Your task to perform on an android device: Open the calendar and show me this week's events? Image 0: 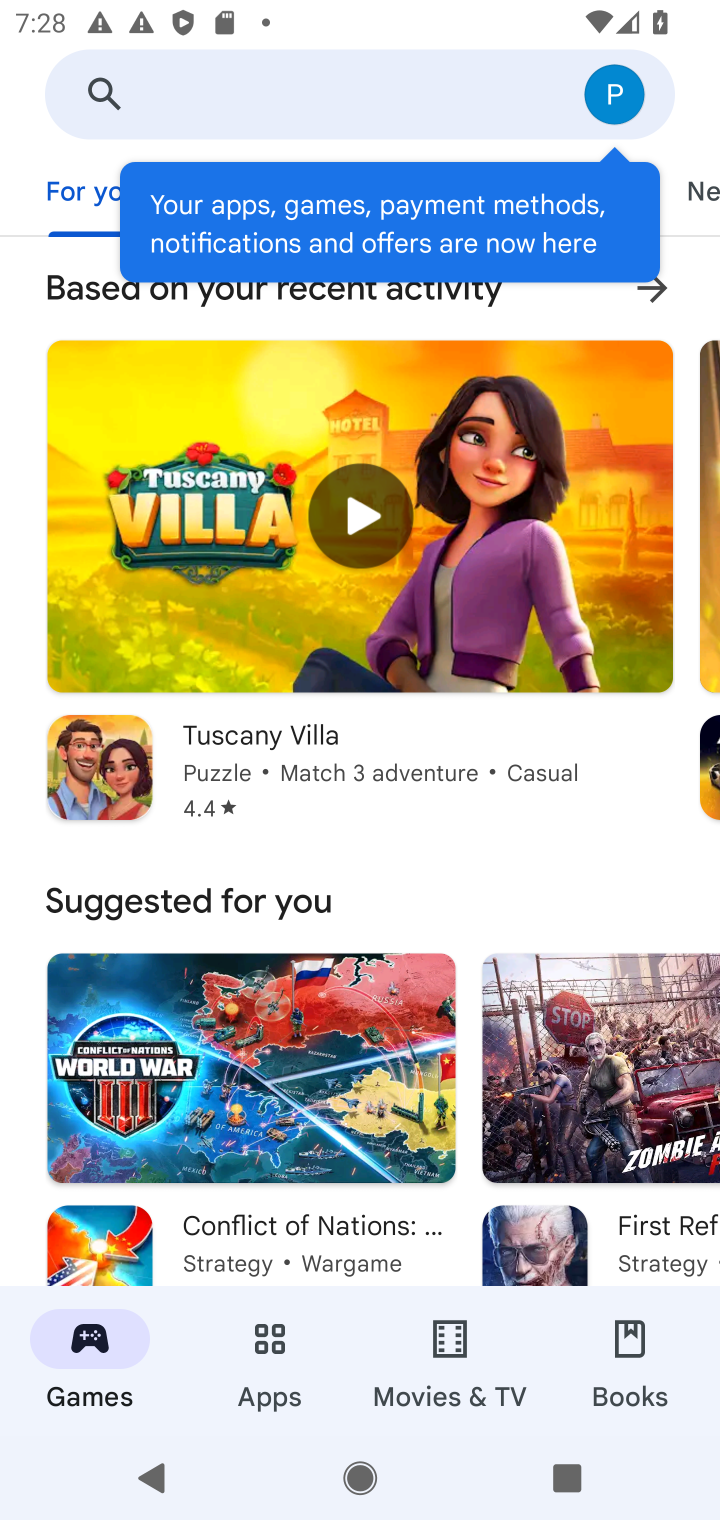
Step 0: press home button
Your task to perform on an android device: Open the calendar and show me this week's events? Image 1: 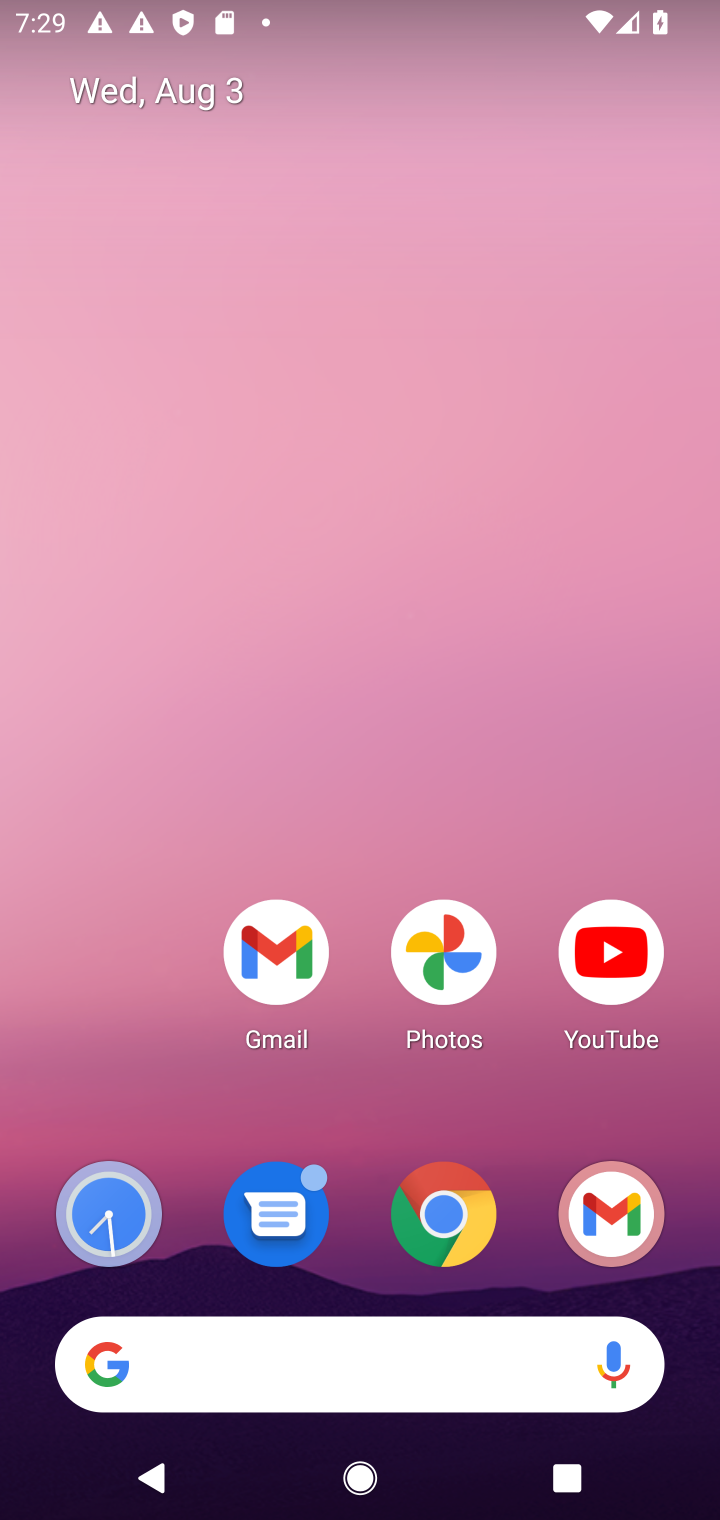
Step 1: drag from (325, 1305) to (360, 17)
Your task to perform on an android device: Open the calendar and show me this week's events? Image 2: 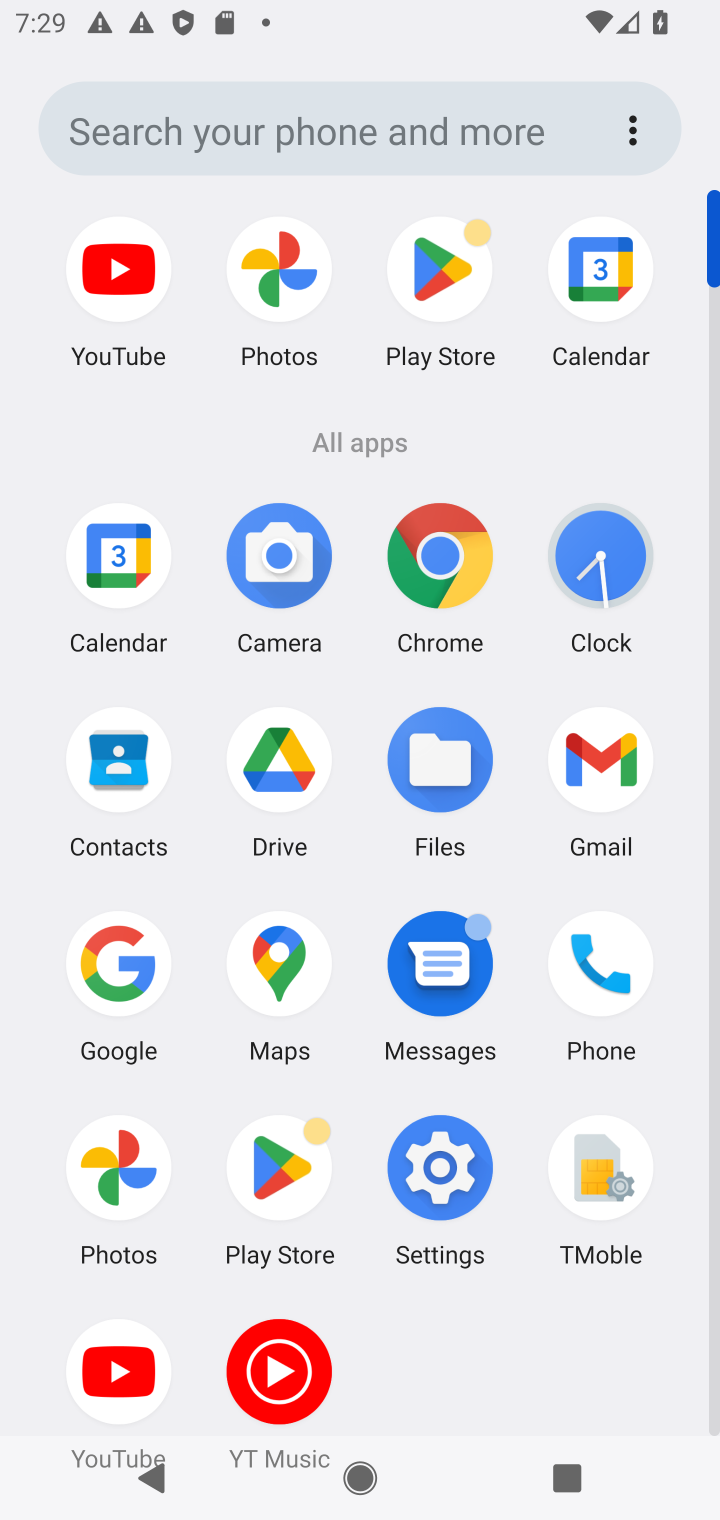
Step 2: click (122, 570)
Your task to perform on an android device: Open the calendar and show me this week's events? Image 3: 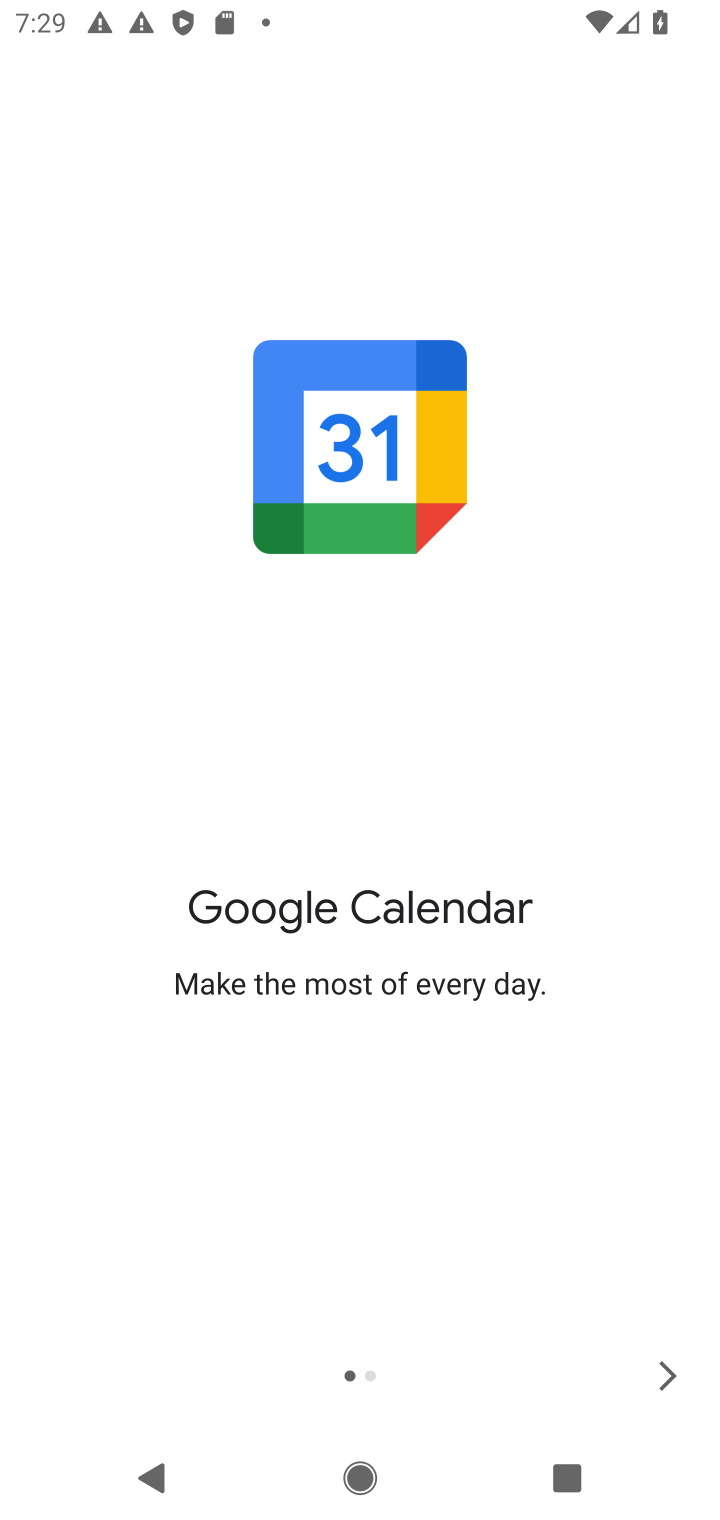
Step 3: click (668, 1374)
Your task to perform on an android device: Open the calendar and show me this week's events? Image 4: 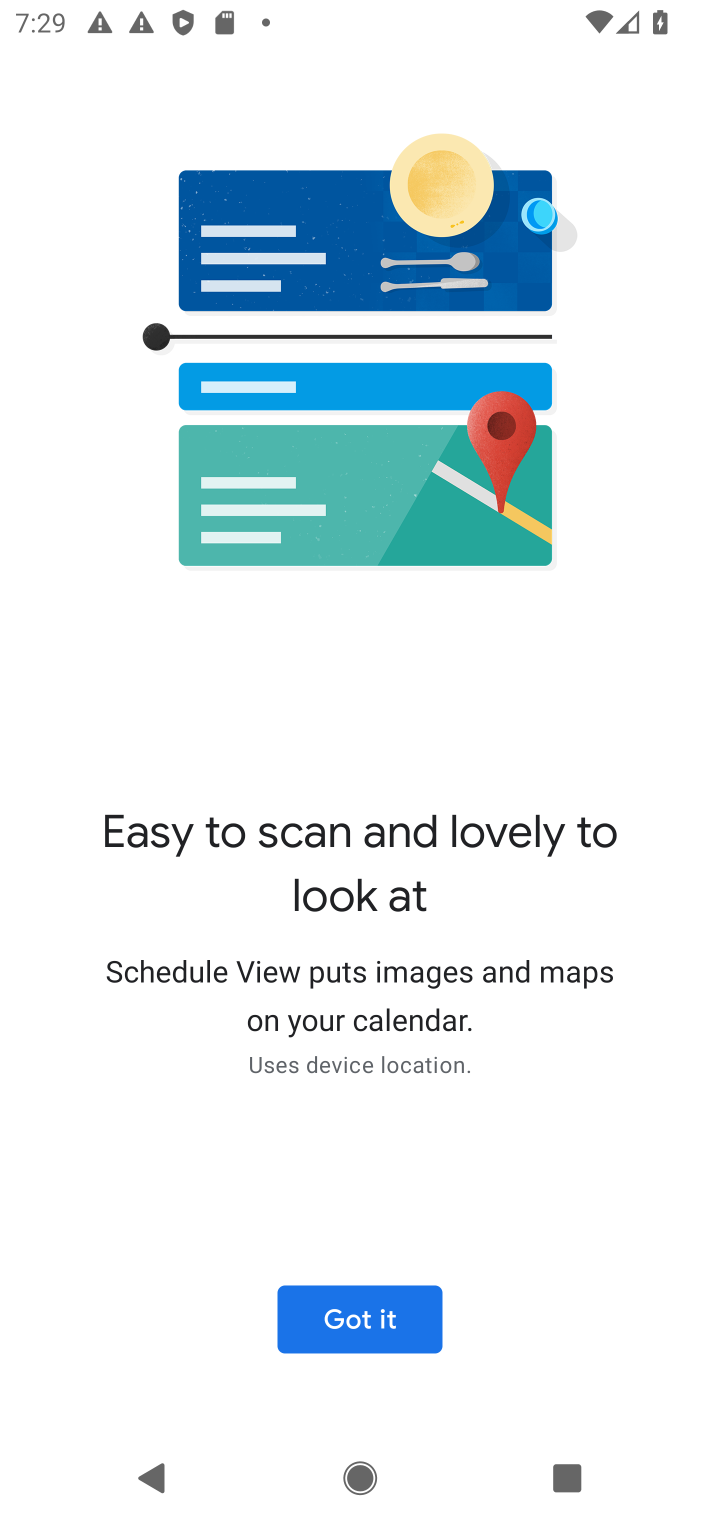
Step 4: click (404, 1328)
Your task to perform on an android device: Open the calendar and show me this week's events? Image 5: 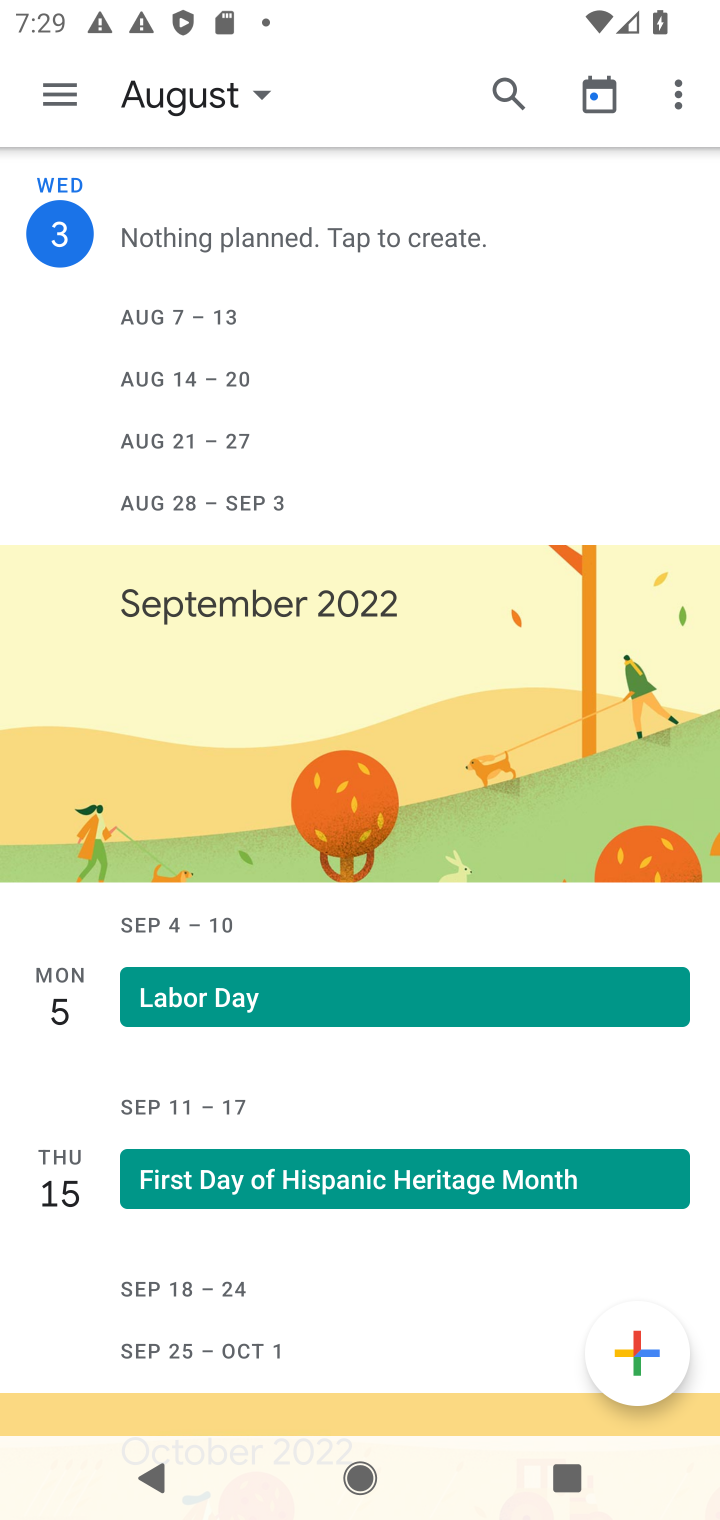
Step 5: click (212, 95)
Your task to perform on an android device: Open the calendar and show me this week's events? Image 6: 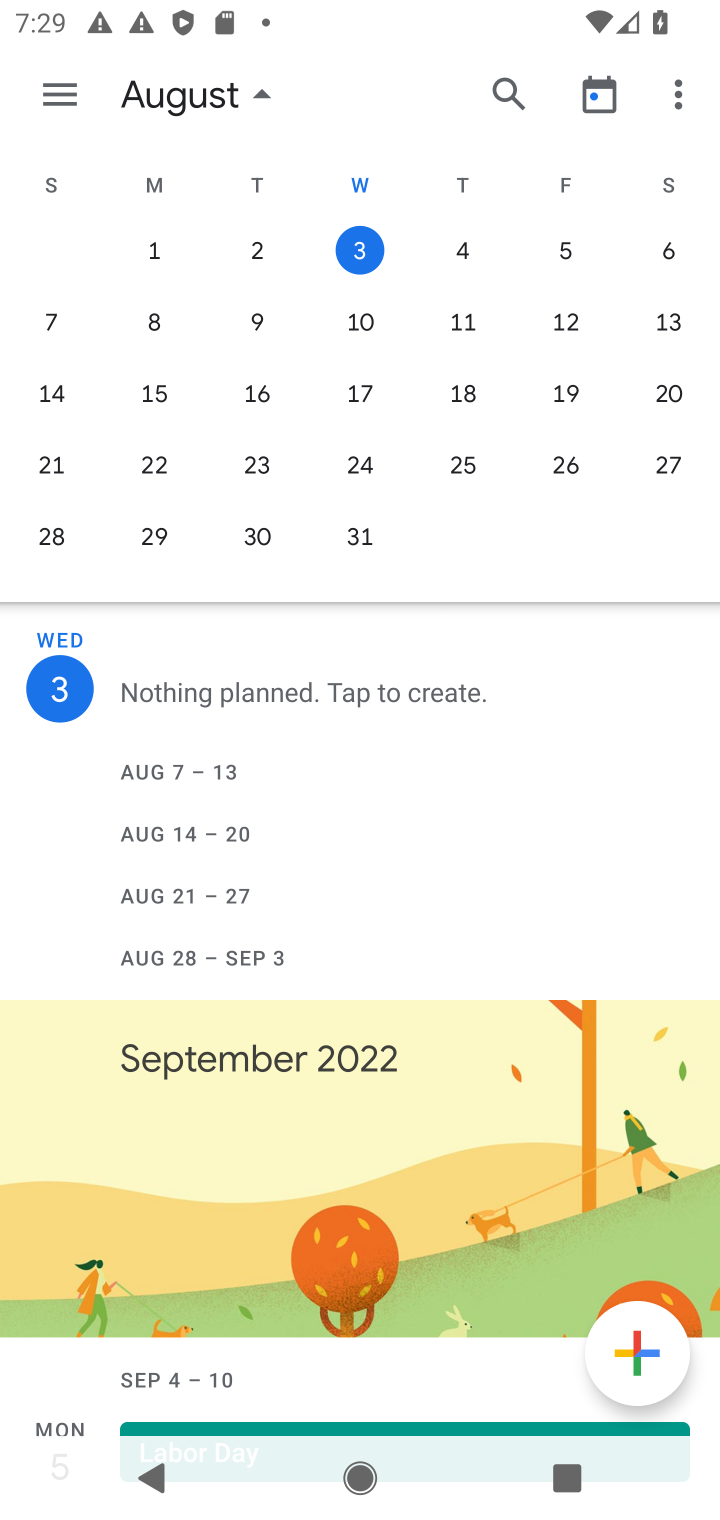
Step 6: click (658, 254)
Your task to perform on an android device: Open the calendar and show me this week's events? Image 7: 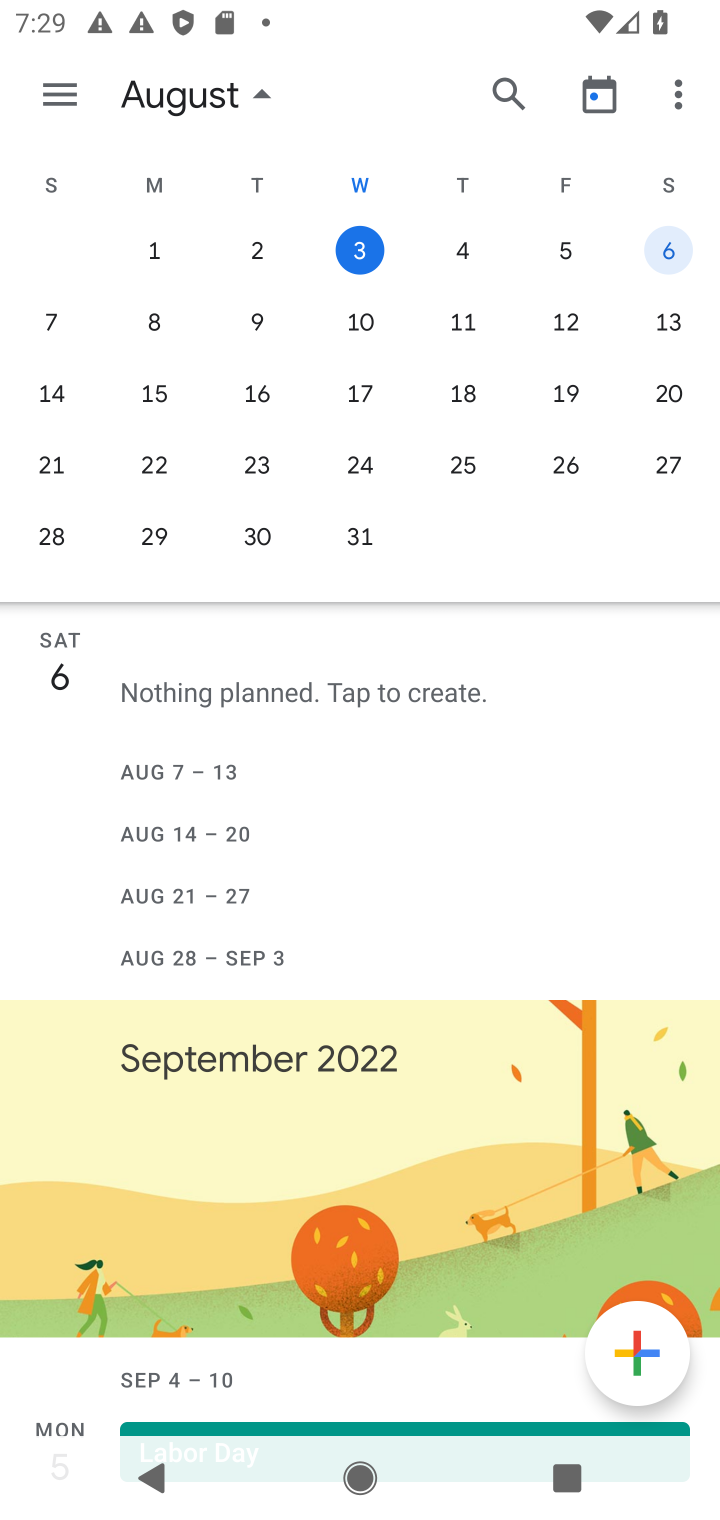
Step 7: task complete